Your task to perform on an android device: turn off notifications in google photos Image 0: 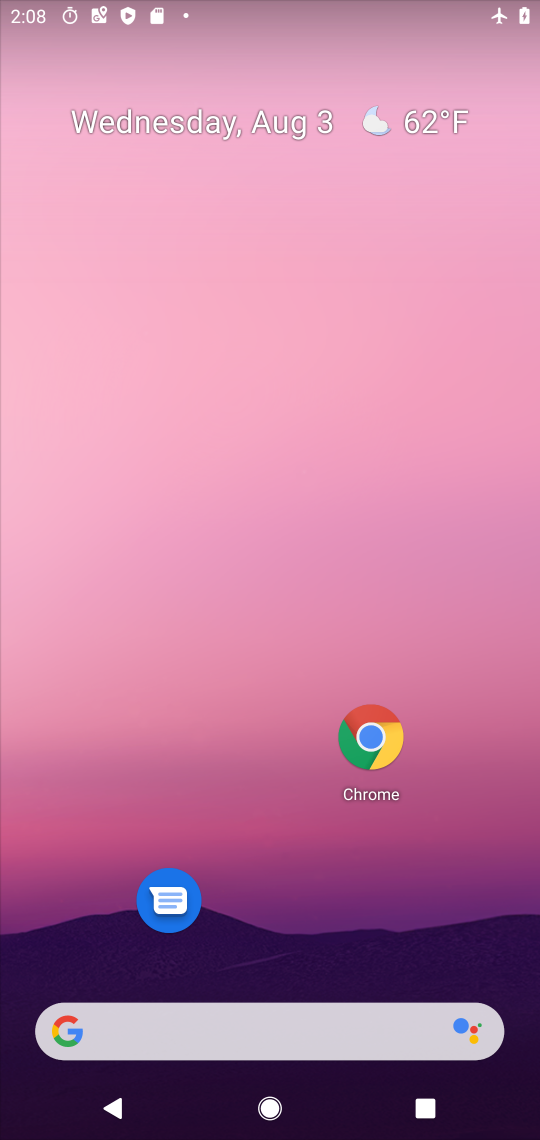
Step 0: drag from (230, 573) to (225, 151)
Your task to perform on an android device: turn off notifications in google photos Image 1: 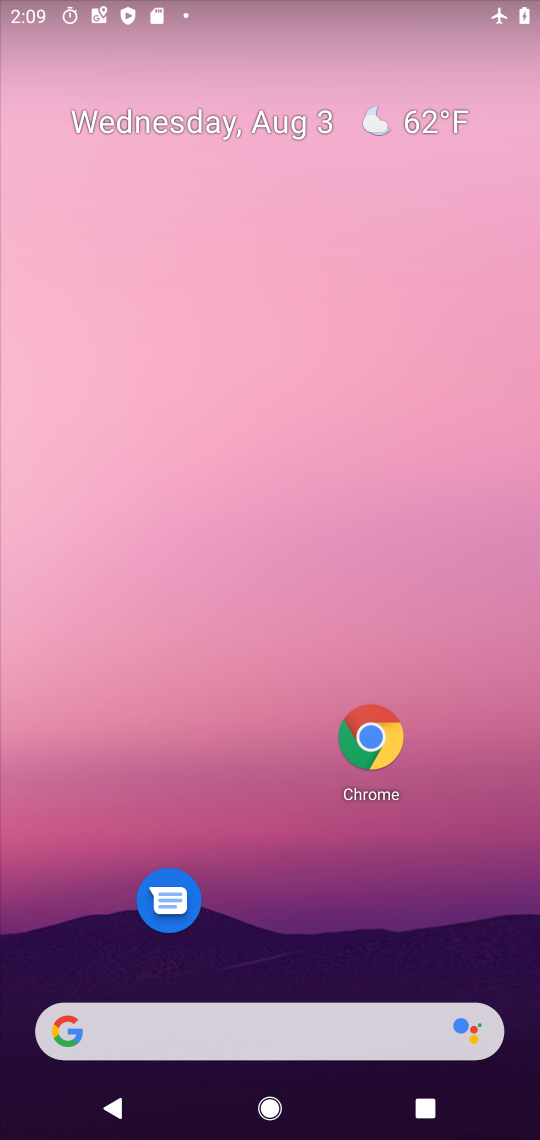
Step 1: drag from (261, 951) to (312, 271)
Your task to perform on an android device: turn off notifications in google photos Image 2: 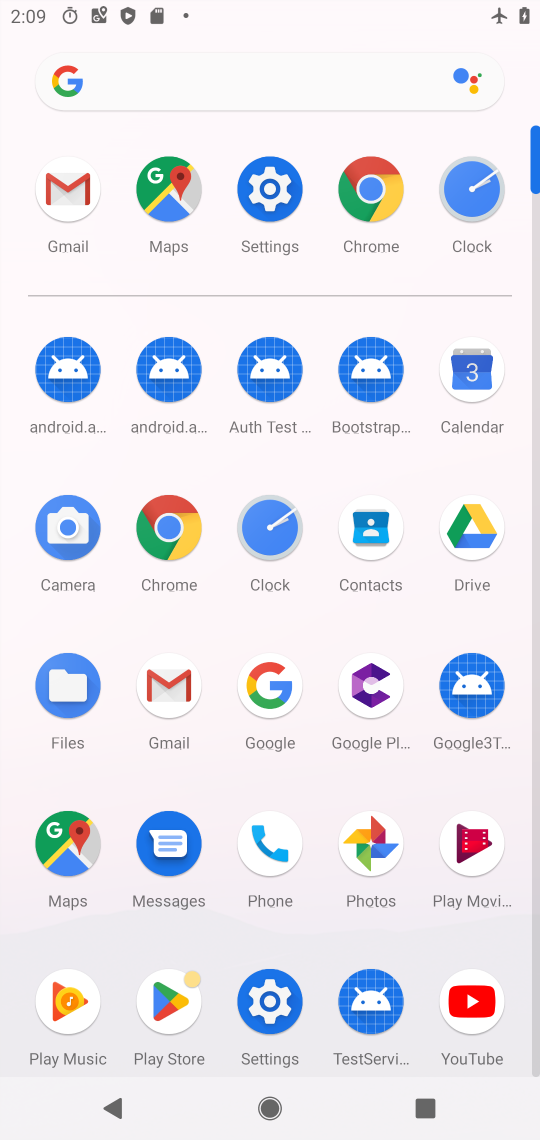
Step 2: click (375, 839)
Your task to perform on an android device: turn off notifications in google photos Image 3: 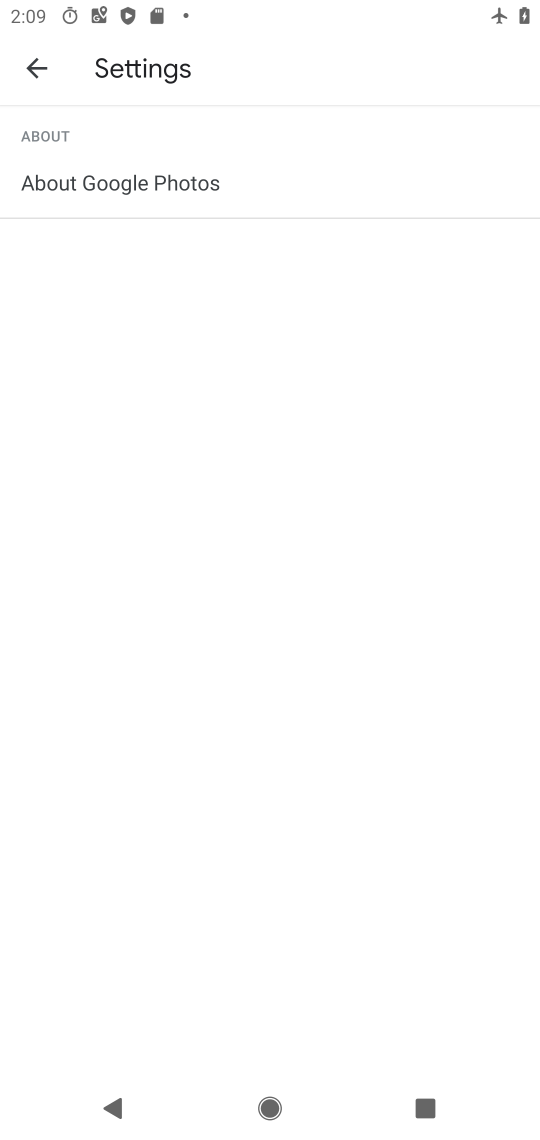
Step 3: click (43, 82)
Your task to perform on an android device: turn off notifications in google photos Image 4: 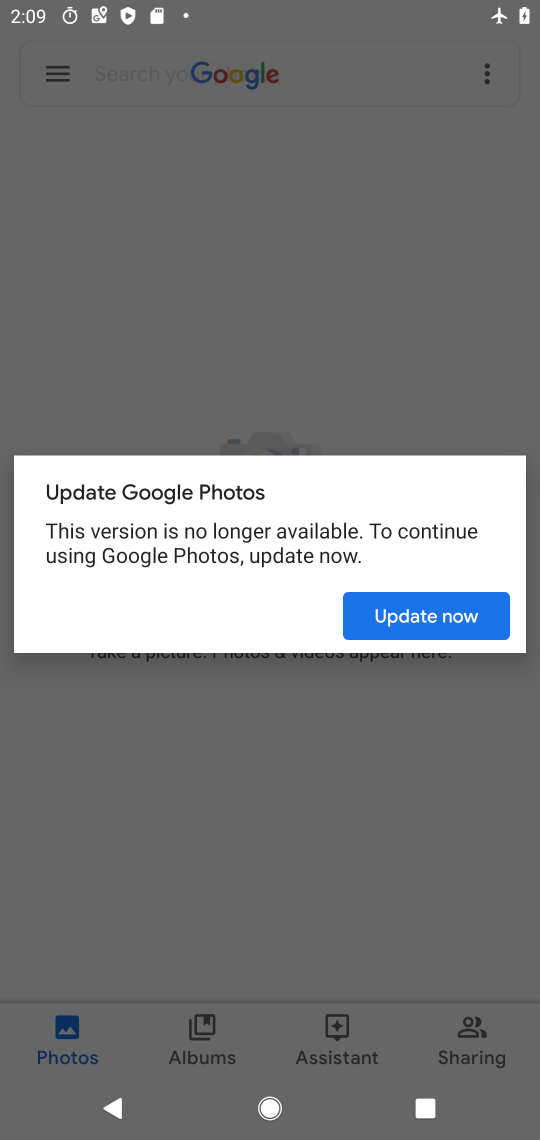
Step 4: click (383, 774)
Your task to perform on an android device: turn off notifications in google photos Image 5: 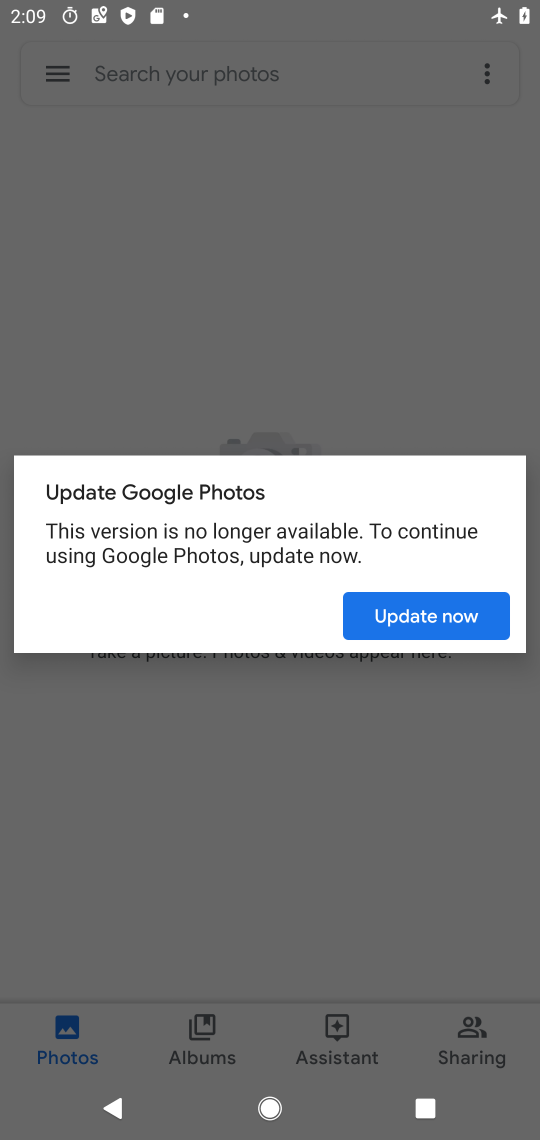
Step 5: click (403, 612)
Your task to perform on an android device: turn off notifications in google photos Image 6: 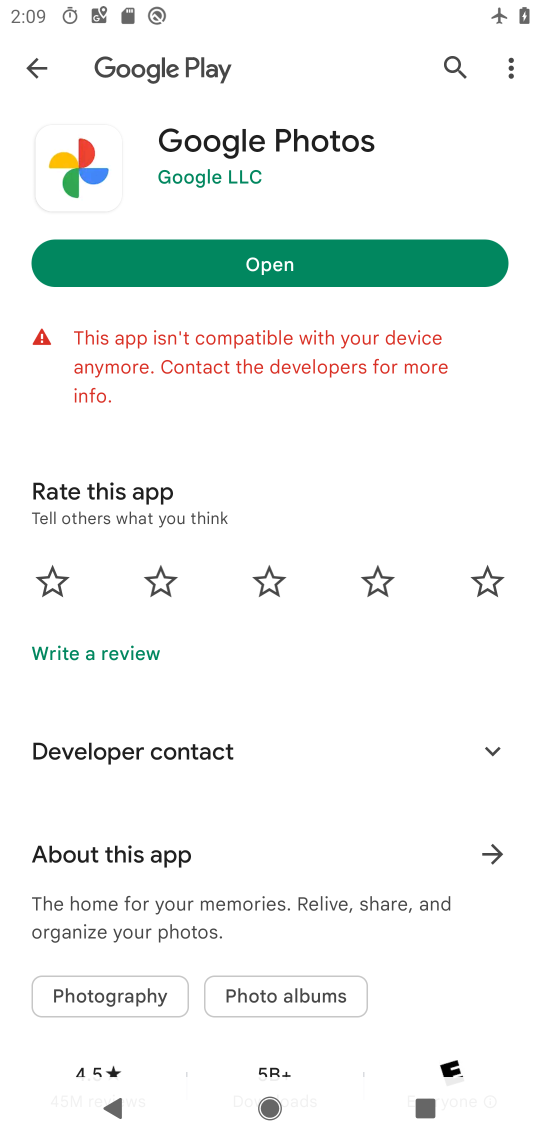
Step 6: click (403, 271)
Your task to perform on an android device: turn off notifications in google photos Image 7: 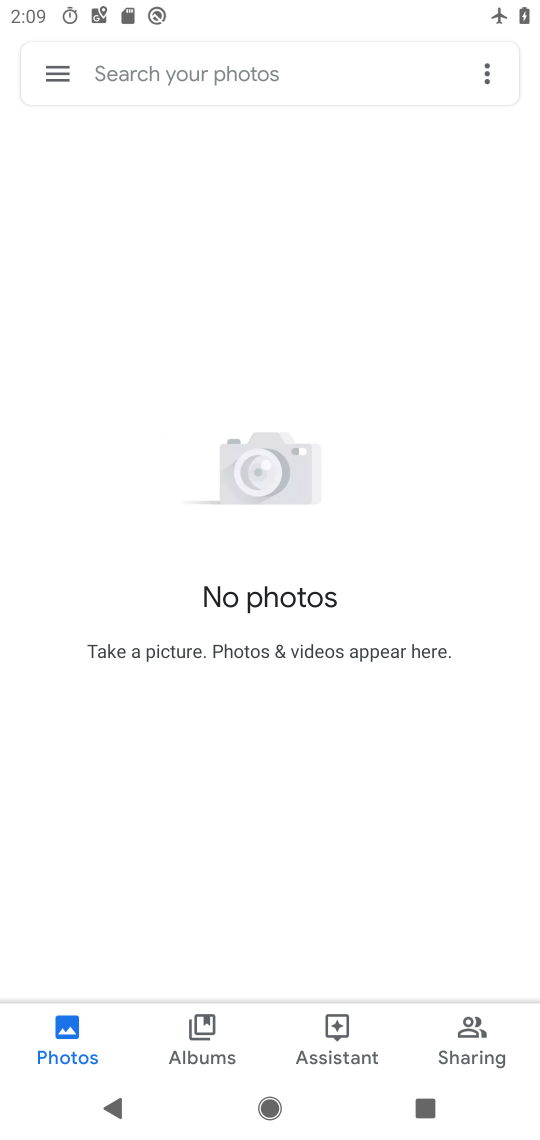
Step 7: click (54, 74)
Your task to perform on an android device: turn off notifications in google photos Image 8: 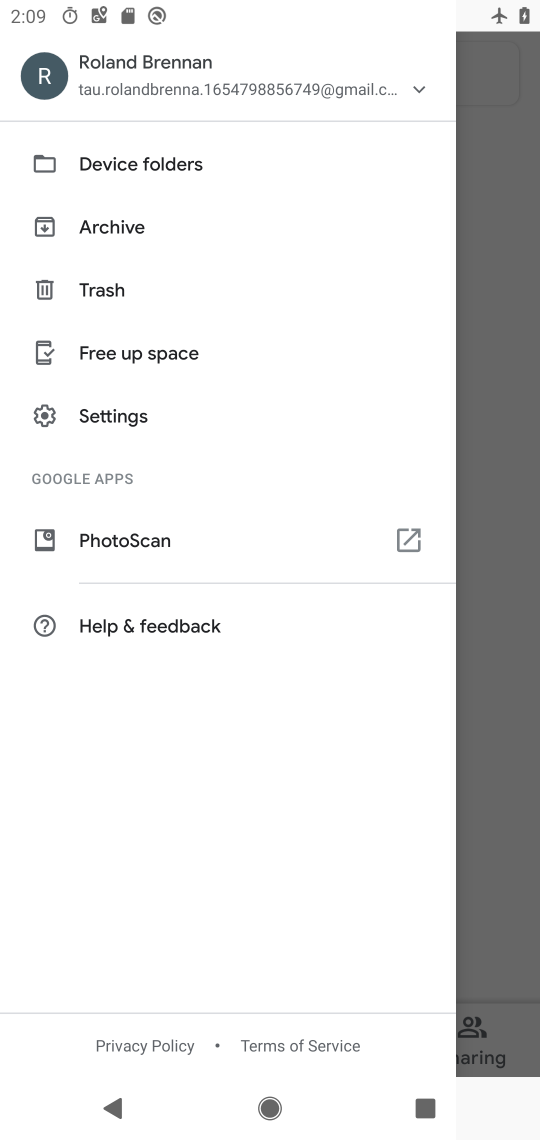
Step 8: click (131, 410)
Your task to perform on an android device: turn off notifications in google photos Image 9: 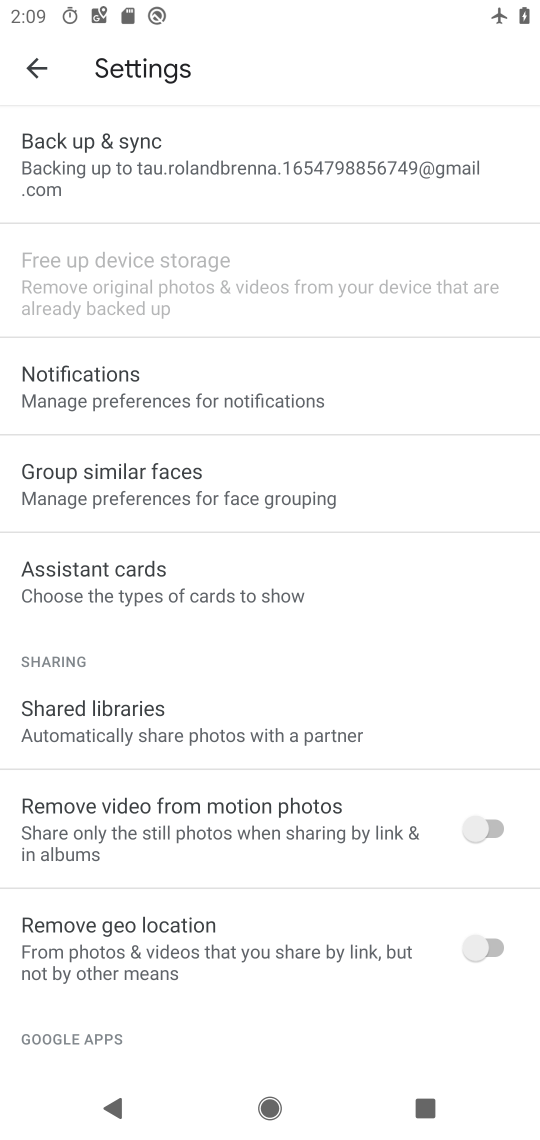
Step 9: click (181, 396)
Your task to perform on an android device: turn off notifications in google photos Image 10: 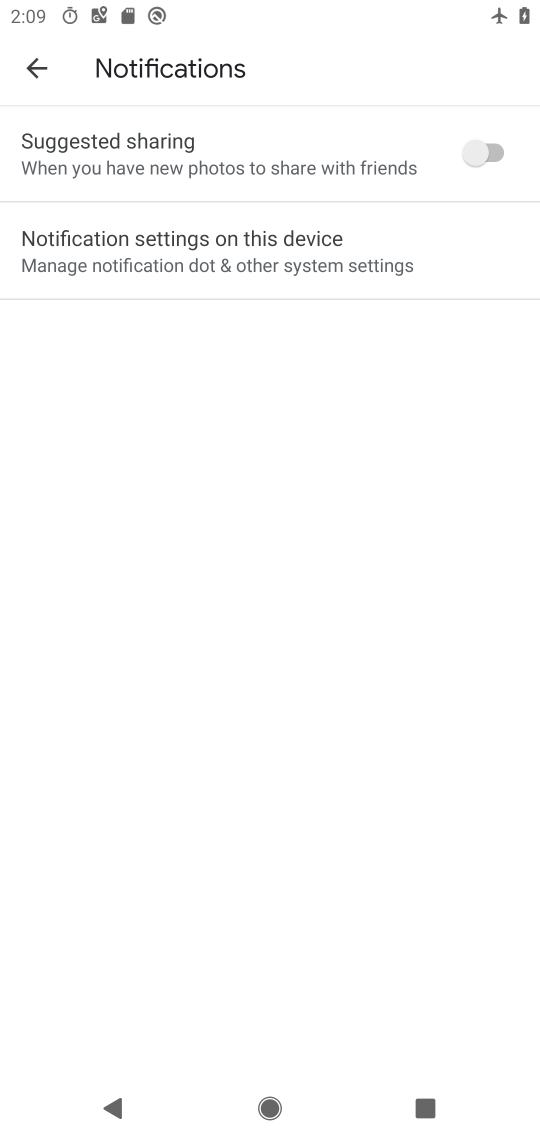
Step 10: click (286, 273)
Your task to perform on an android device: turn off notifications in google photos Image 11: 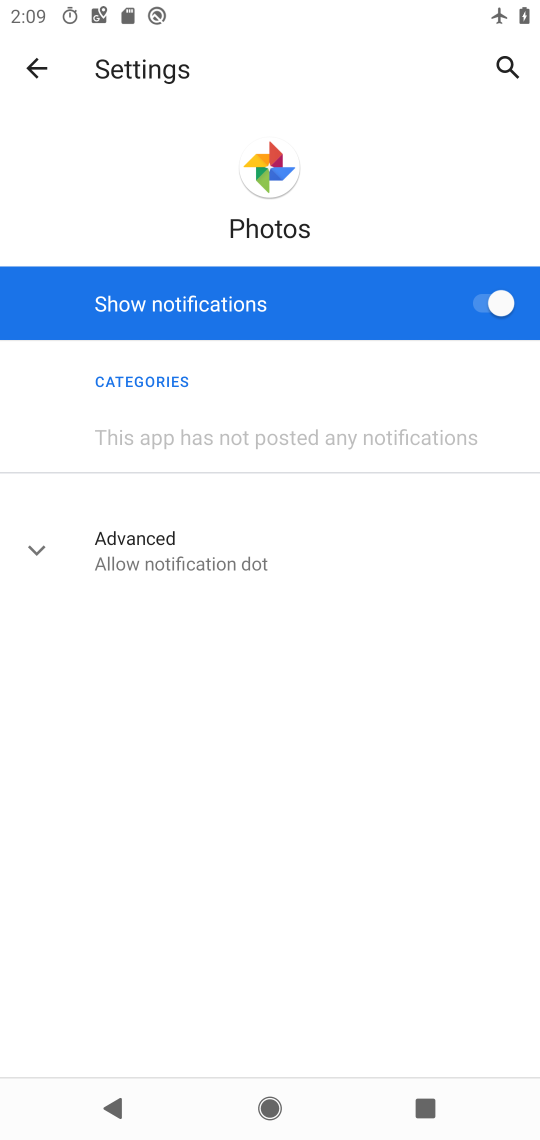
Step 11: click (484, 298)
Your task to perform on an android device: turn off notifications in google photos Image 12: 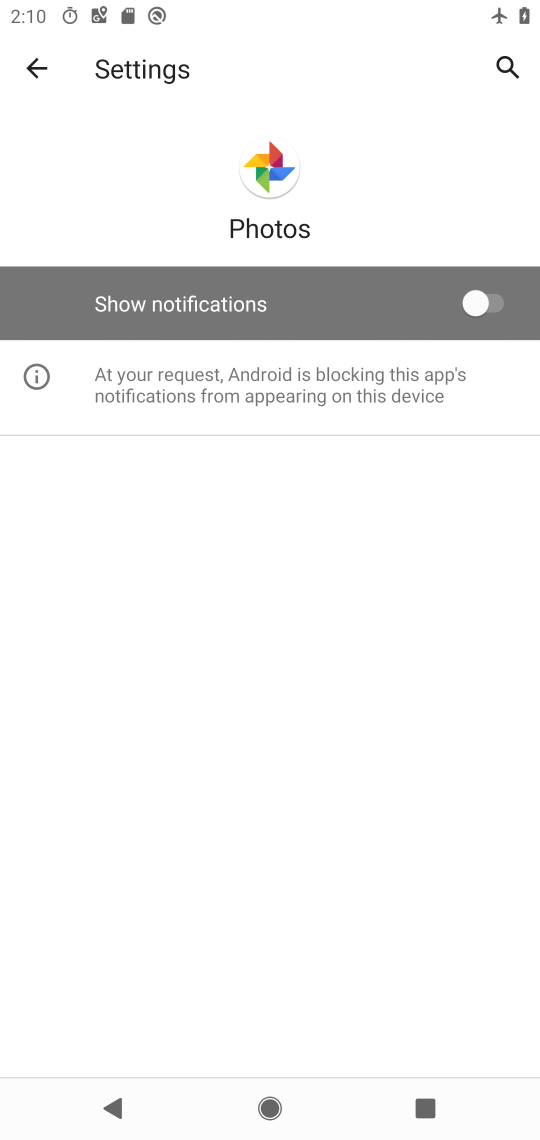
Step 12: task complete